Your task to perform on an android device: turn notification dots off Image 0: 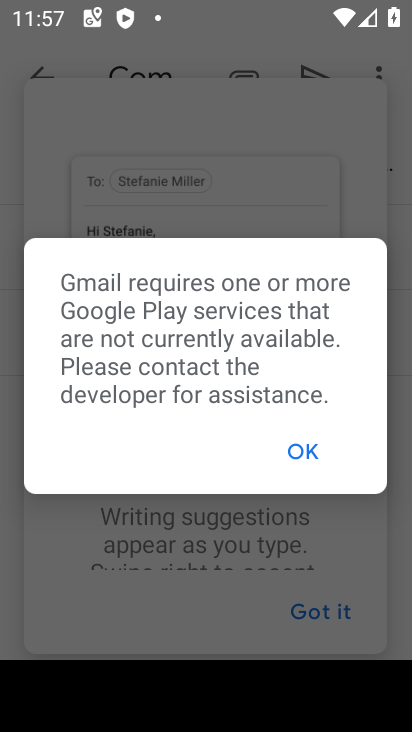
Step 0: press home button
Your task to perform on an android device: turn notification dots off Image 1: 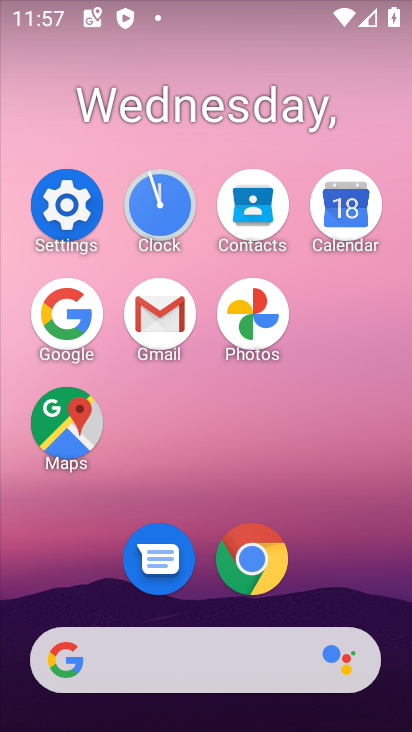
Step 1: click (51, 220)
Your task to perform on an android device: turn notification dots off Image 2: 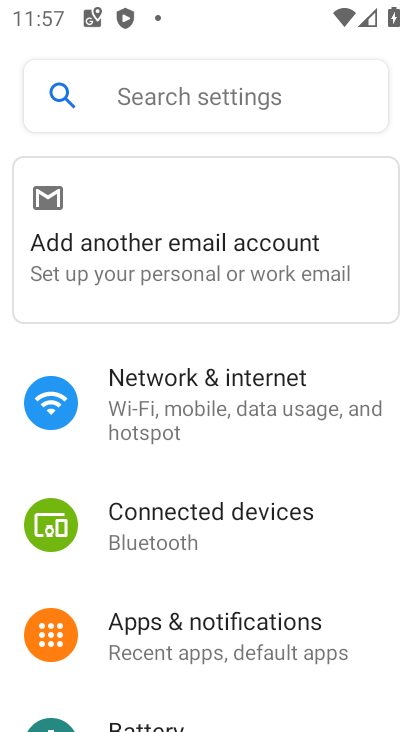
Step 2: click (275, 646)
Your task to perform on an android device: turn notification dots off Image 3: 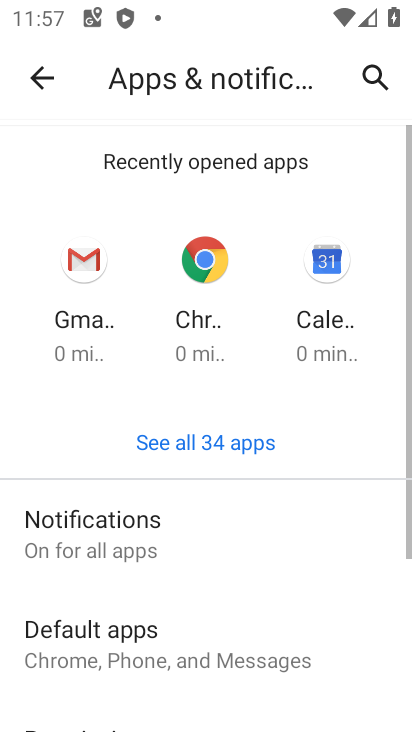
Step 3: click (130, 548)
Your task to perform on an android device: turn notification dots off Image 4: 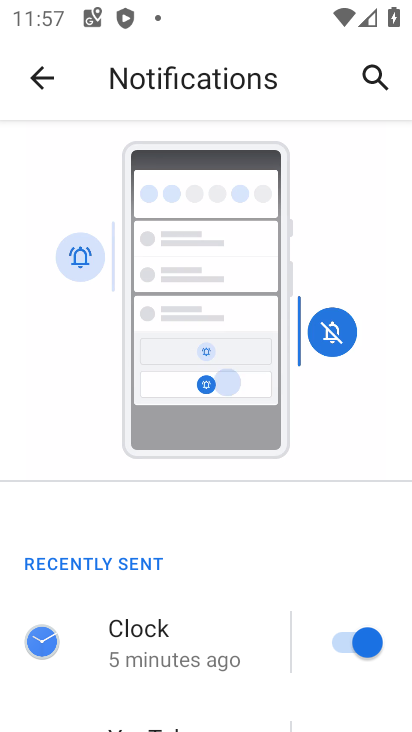
Step 4: drag from (197, 603) to (252, 158)
Your task to perform on an android device: turn notification dots off Image 5: 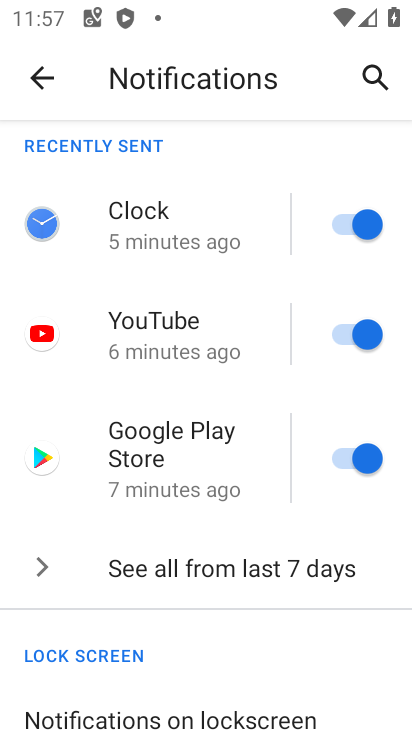
Step 5: drag from (193, 647) to (215, 180)
Your task to perform on an android device: turn notification dots off Image 6: 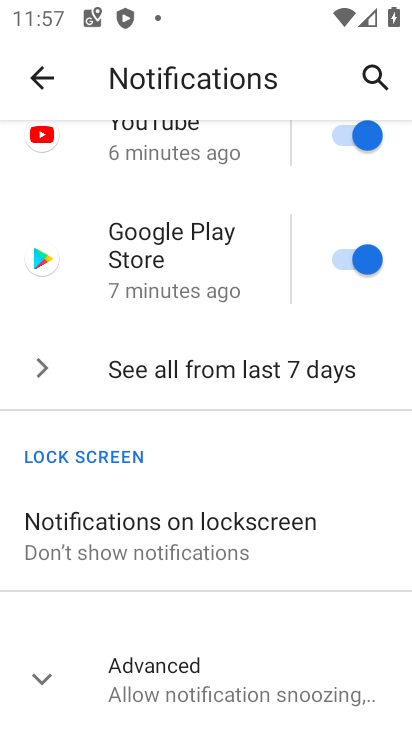
Step 6: click (187, 689)
Your task to perform on an android device: turn notification dots off Image 7: 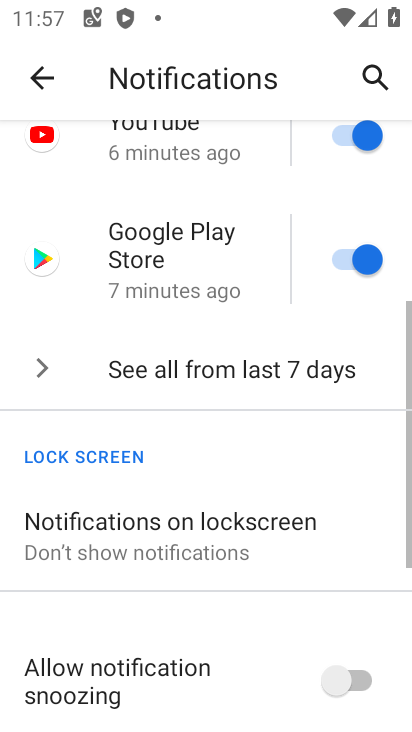
Step 7: drag from (204, 655) to (259, 152)
Your task to perform on an android device: turn notification dots off Image 8: 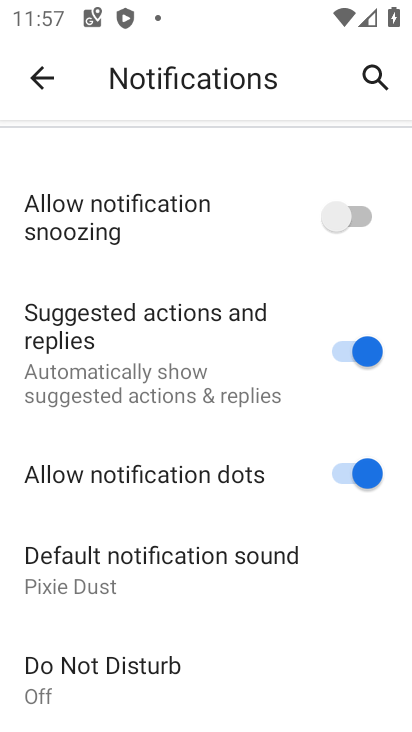
Step 8: click (355, 474)
Your task to perform on an android device: turn notification dots off Image 9: 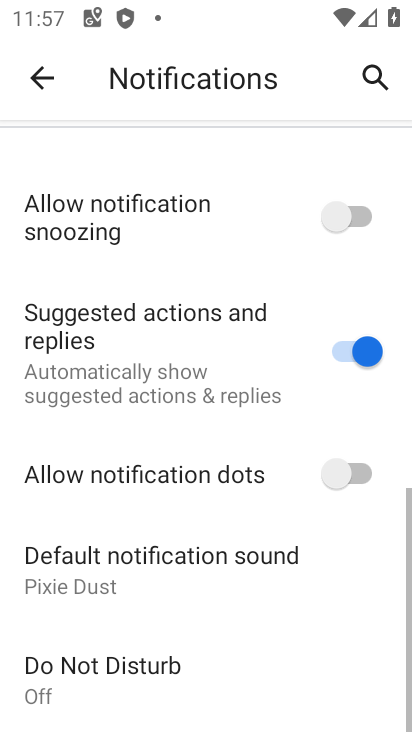
Step 9: task complete